Your task to perform on an android device: see sites visited before in the chrome app Image 0: 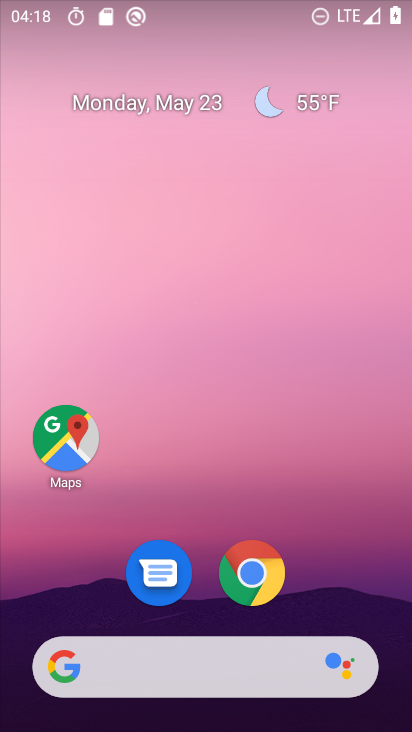
Step 0: click (255, 570)
Your task to perform on an android device: see sites visited before in the chrome app Image 1: 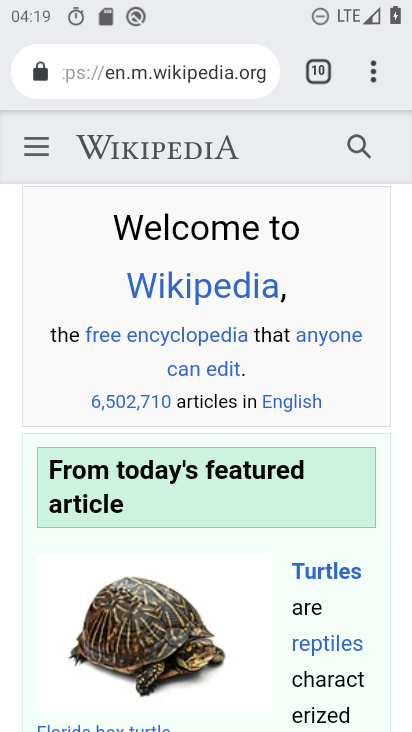
Step 1: click (381, 81)
Your task to perform on an android device: see sites visited before in the chrome app Image 2: 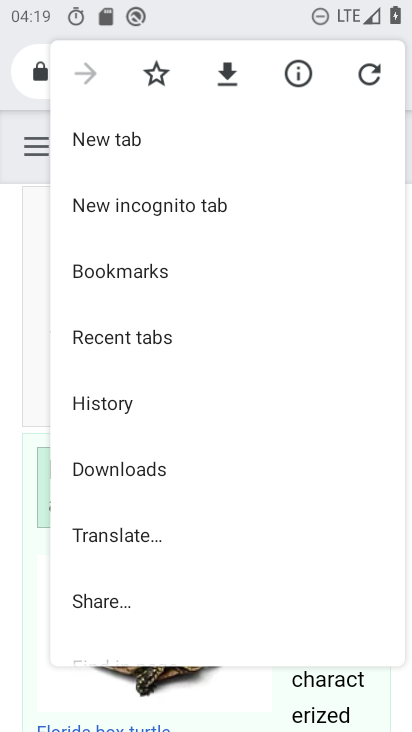
Step 2: click (111, 403)
Your task to perform on an android device: see sites visited before in the chrome app Image 3: 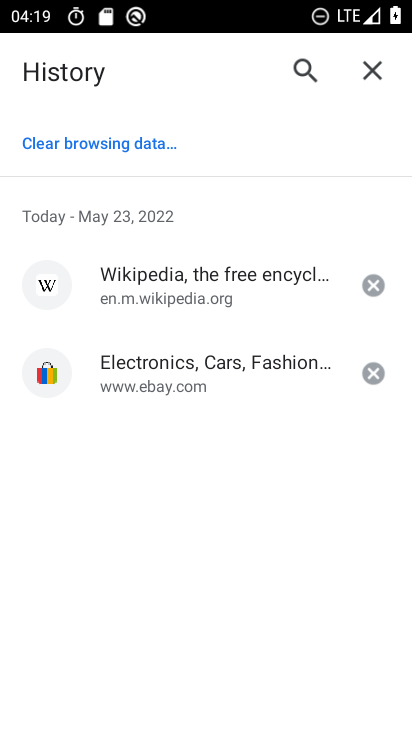
Step 3: task complete